Your task to perform on an android device: Open Yahoo.com Image 0: 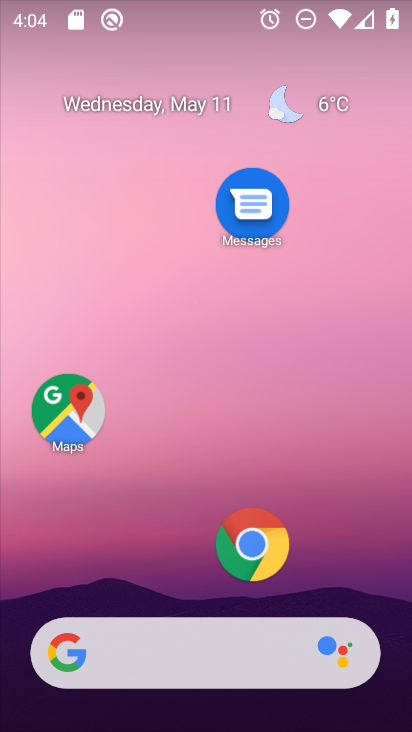
Step 0: click (234, 544)
Your task to perform on an android device: Open Yahoo.com Image 1: 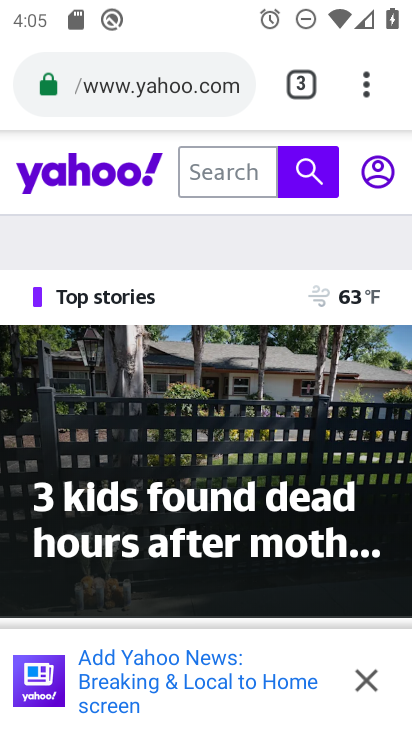
Step 1: task complete